Your task to perform on an android device: turn on location history Image 0: 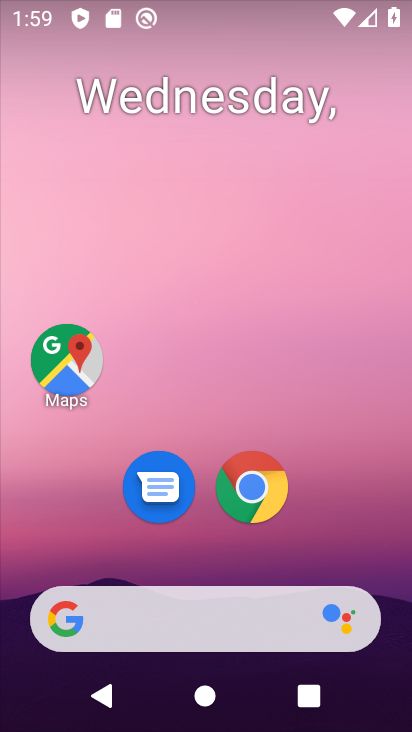
Step 0: drag from (196, 419) to (205, 20)
Your task to perform on an android device: turn on location history Image 1: 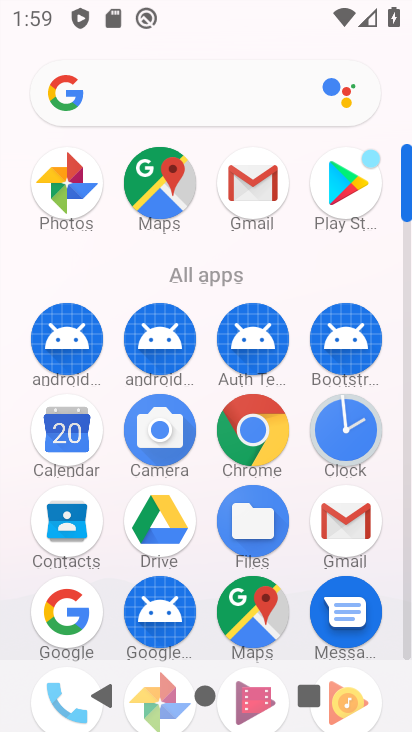
Step 1: drag from (191, 467) to (202, 162)
Your task to perform on an android device: turn on location history Image 2: 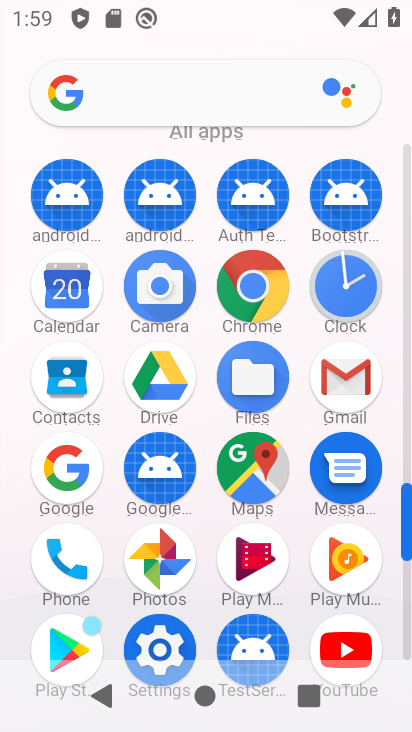
Step 2: click (156, 638)
Your task to perform on an android device: turn on location history Image 3: 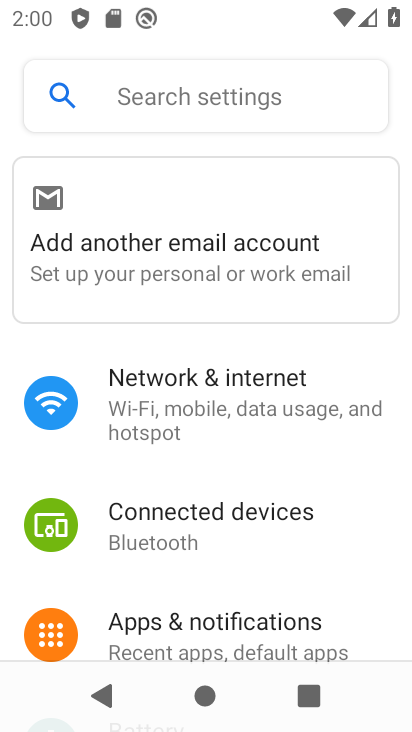
Step 3: drag from (214, 599) to (253, 100)
Your task to perform on an android device: turn on location history Image 4: 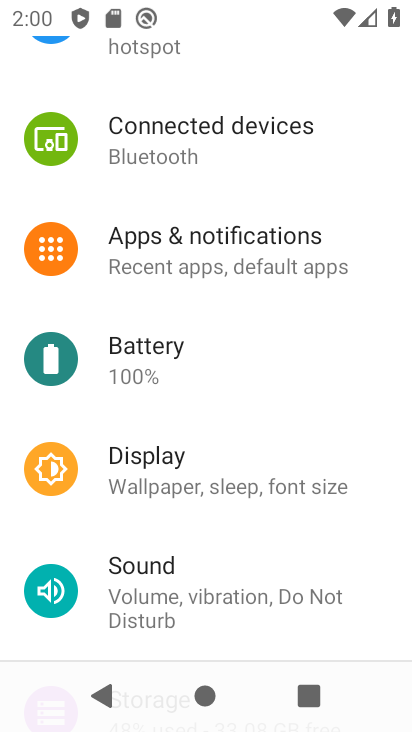
Step 4: drag from (230, 582) to (221, 324)
Your task to perform on an android device: turn on location history Image 5: 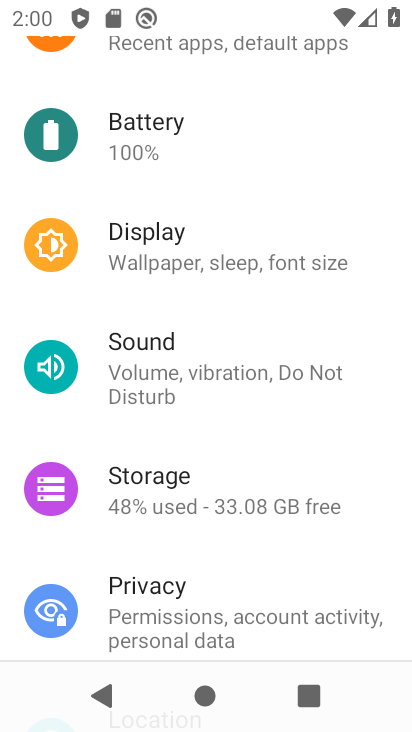
Step 5: drag from (217, 531) to (197, 271)
Your task to perform on an android device: turn on location history Image 6: 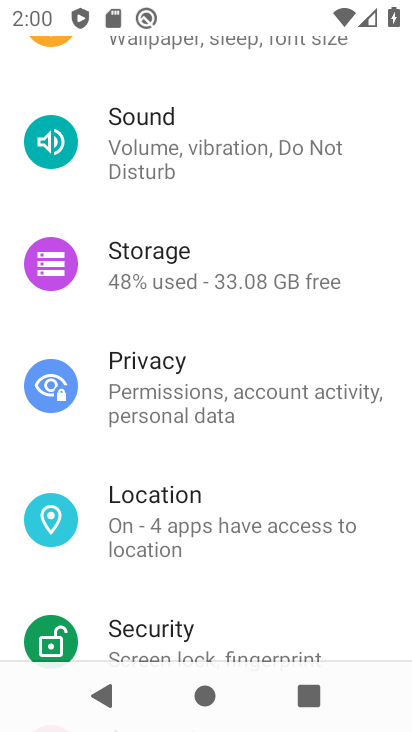
Step 6: click (239, 515)
Your task to perform on an android device: turn on location history Image 7: 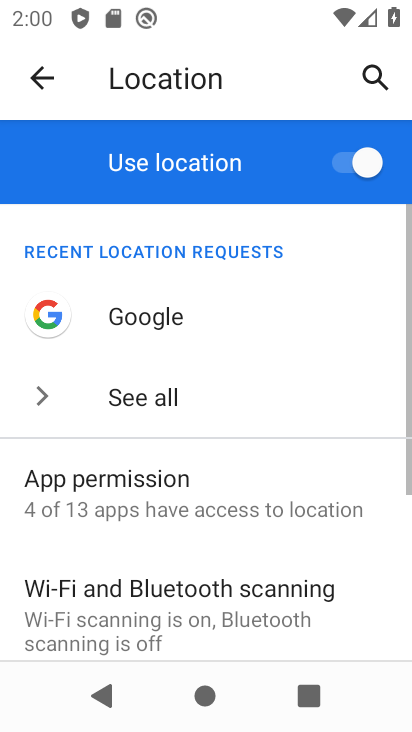
Step 7: drag from (208, 598) to (210, 314)
Your task to perform on an android device: turn on location history Image 8: 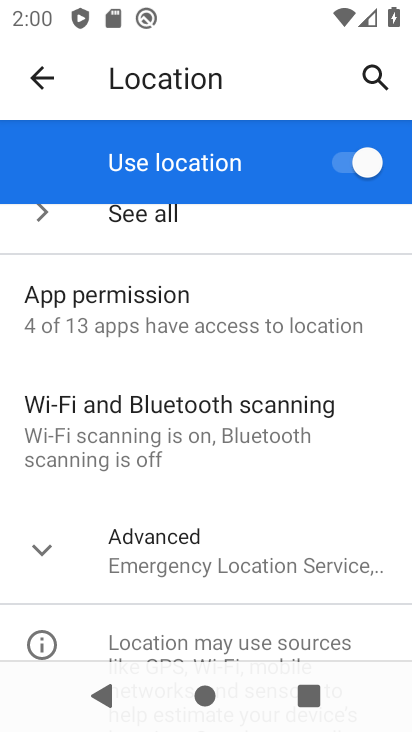
Step 8: click (181, 545)
Your task to perform on an android device: turn on location history Image 9: 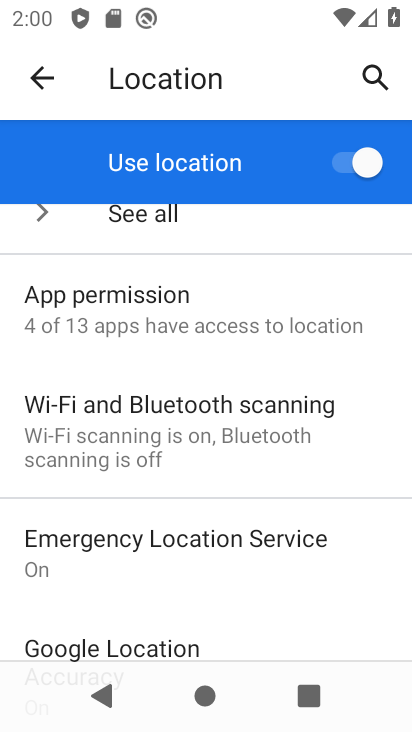
Step 9: drag from (232, 587) to (238, 338)
Your task to perform on an android device: turn on location history Image 10: 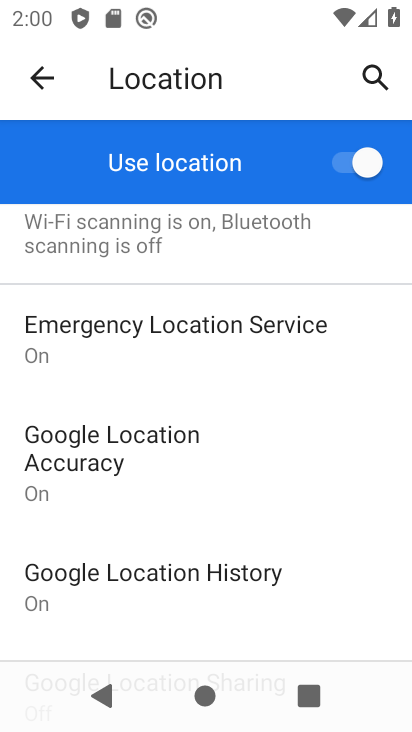
Step 10: click (197, 581)
Your task to perform on an android device: turn on location history Image 11: 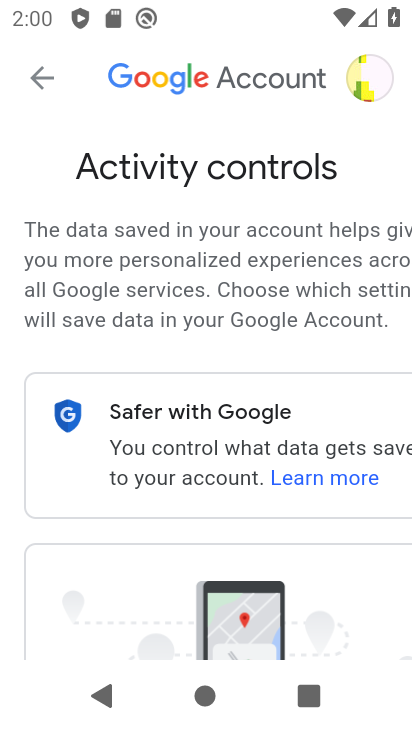
Step 11: task complete